Your task to perform on an android device: Clear the shopping cart on walmart.com. Add logitech g910 to the cart on walmart.com Image 0: 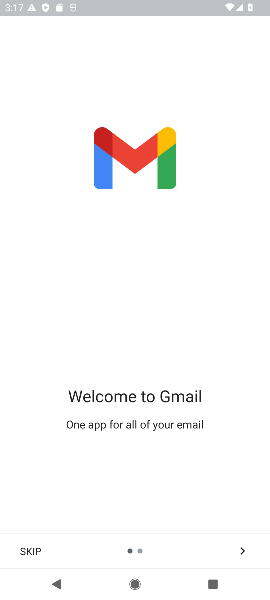
Step 0: press home button
Your task to perform on an android device: Clear the shopping cart on walmart.com. Add logitech g910 to the cart on walmart.com Image 1: 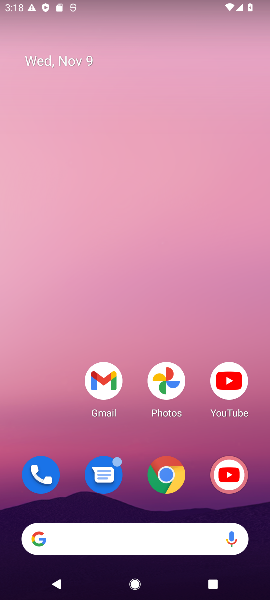
Step 1: drag from (132, 494) to (109, 93)
Your task to perform on an android device: Clear the shopping cart on walmart.com. Add logitech g910 to the cart on walmart.com Image 2: 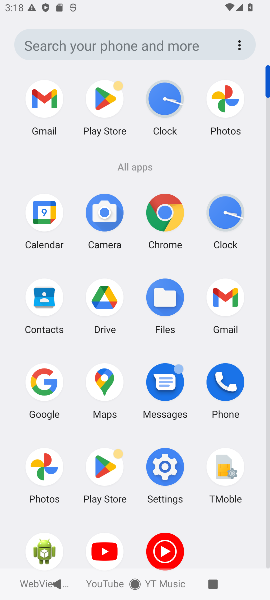
Step 2: click (168, 218)
Your task to perform on an android device: Clear the shopping cart on walmart.com. Add logitech g910 to the cart on walmart.com Image 3: 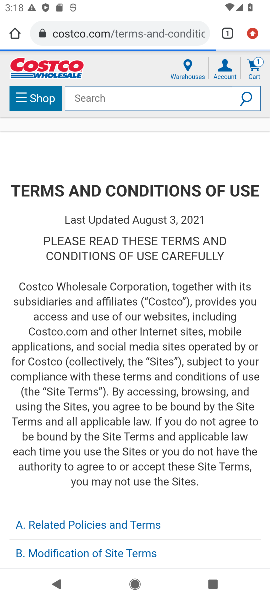
Step 3: click (102, 35)
Your task to perform on an android device: Clear the shopping cart on walmart.com. Add logitech g910 to the cart on walmart.com Image 4: 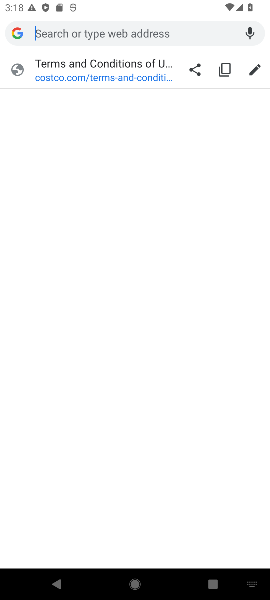
Step 4: type "walmart.com"
Your task to perform on an android device: Clear the shopping cart on walmart.com. Add logitech g910 to the cart on walmart.com Image 5: 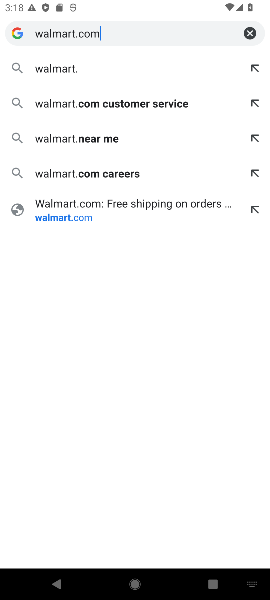
Step 5: press enter
Your task to perform on an android device: Clear the shopping cart on walmart.com. Add logitech g910 to the cart on walmart.com Image 6: 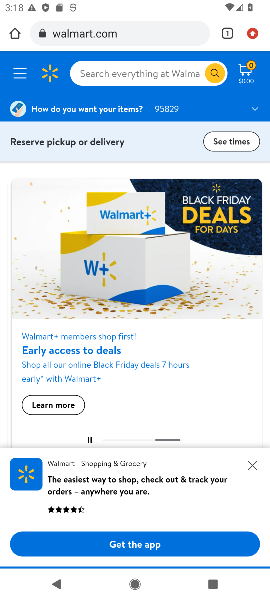
Step 6: click (153, 69)
Your task to perform on an android device: Clear the shopping cart on walmart.com. Add logitech g910 to the cart on walmart.com Image 7: 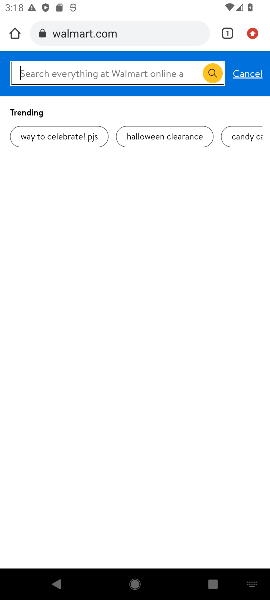
Step 7: type "logitech g910"
Your task to perform on an android device: Clear the shopping cart on walmart.com. Add logitech g910 to the cart on walmart.com Image 8: 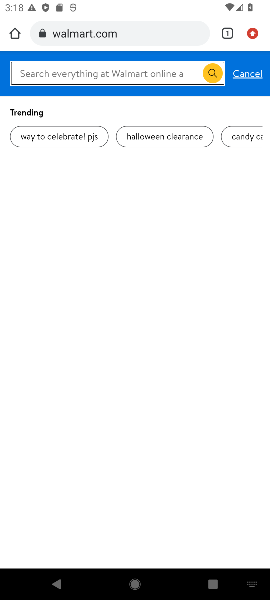
Step 8: press enter
Your task to perform on an android device: Clear the shopping cart on walmart.com. Add logitech g910 to the cart on walmart.com Image 9: 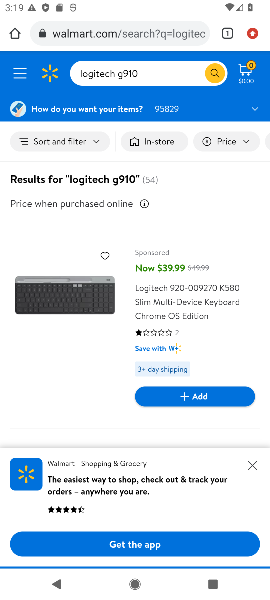
Step 9: click (214, 387)
Your task to perform on an android device: Clear the shopping cart on walmart.com. Add logitech g910 to the cart on walmart.com Image 10: 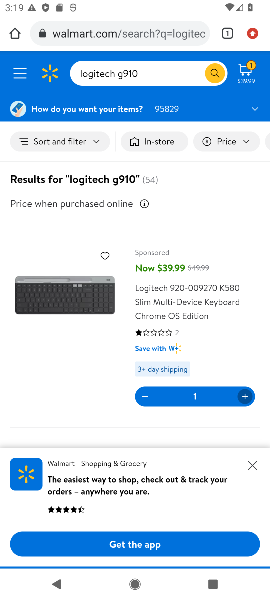
Step 10: click (250, 68)
Your task to perform on an android device: Clear the shopping cart on walmart.com. Add logitech g910 to the cart on walmart.com Image 11: 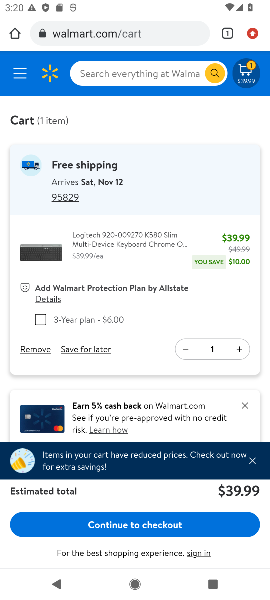
Step 11: task complete